Your task to perform on an android device: open a bookmark in the chrome app Image 0: 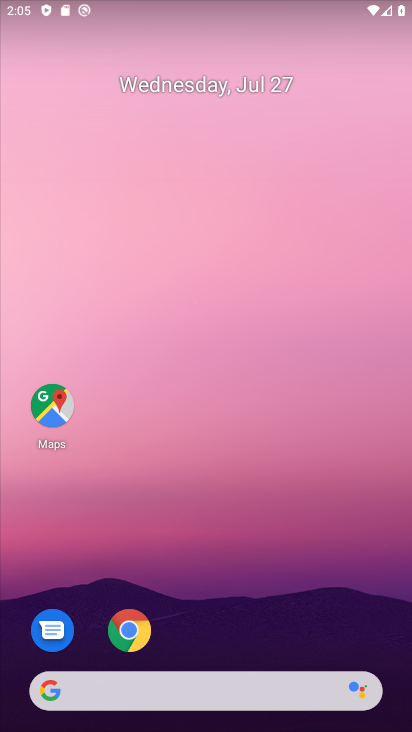
Step 0: drag from (262, 637) to (196, 83)
Your task to perform on an android device: open a bookmark in the chrome app Image 1: 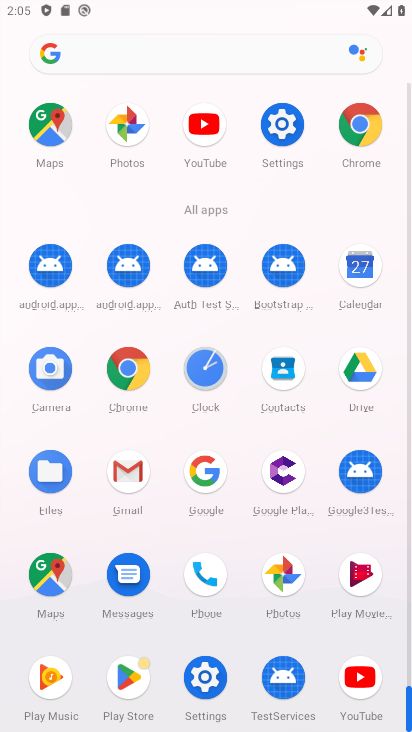
Step 1: click (364, 121)
Your task to perform on an android device: open a bookmark in the chrome app Image 2: 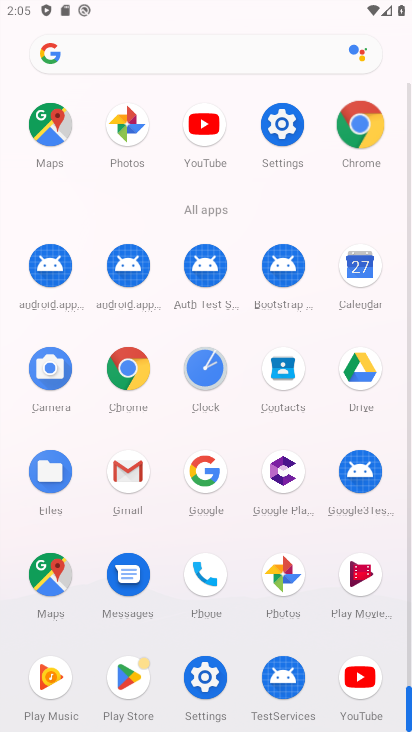
Step 2: click (364, 121)
Your task to perform on an android device: open a bookmark in the chrome app Image 3: 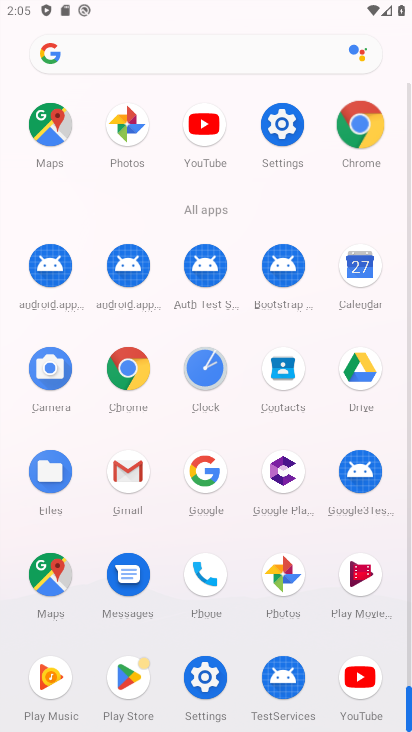
Step 3: click (364, 117)
Your task to perform on an android device: open a bookmark in the chrome app Image 4: 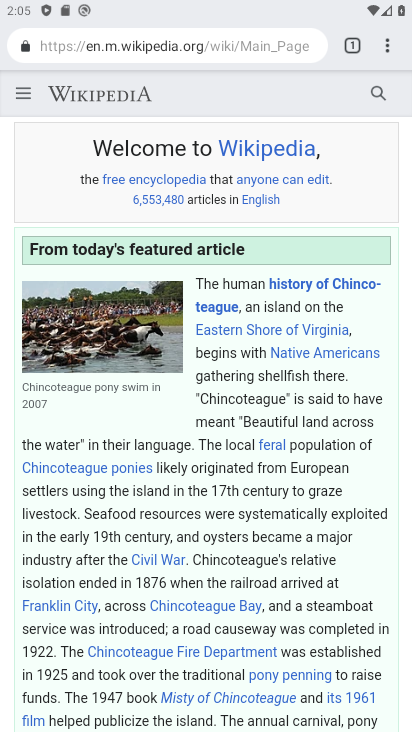
Step 4: drag from (386, 48) to (233, 167)
Your task to perform on an android device: open a bookmark in the chrome app Image 5: 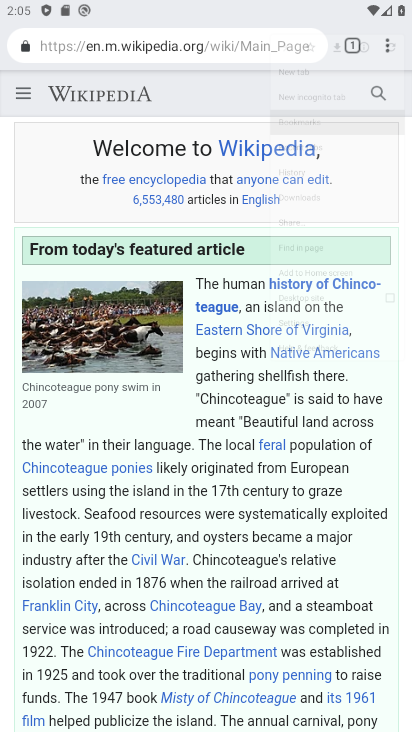
Step 5: click (233, 175)
Your task to perform on an android device: open a bookmark in the chrome app Image 6: 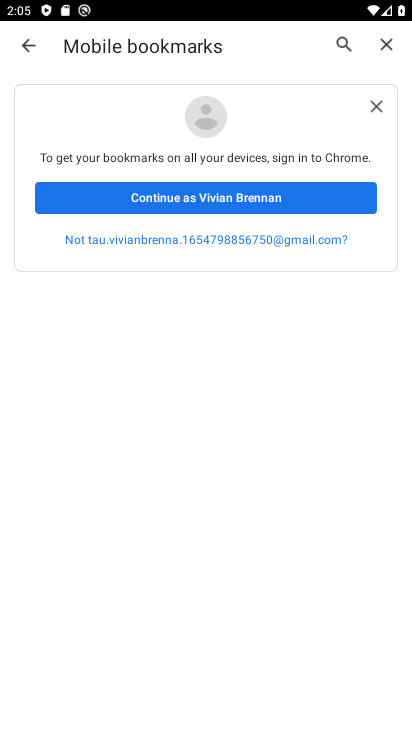
Step 6: click (366, 109)
Your task to perform on an android device: open a bookmark in the chrome app Image 7: 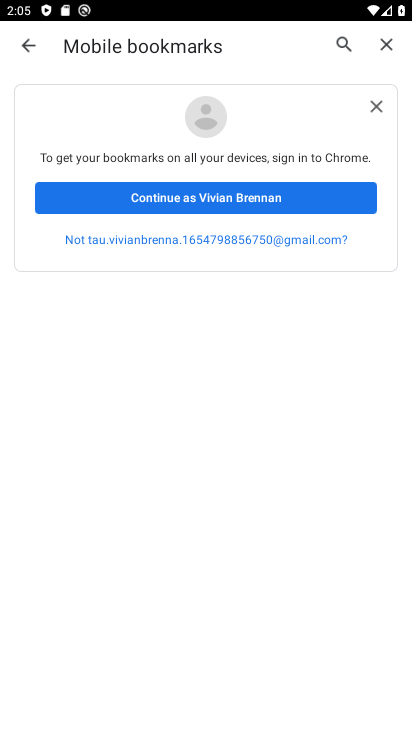
Step 7: click (368, 109)
Your task to perform on an android device: open a bookmark in the chrome app Image 8: 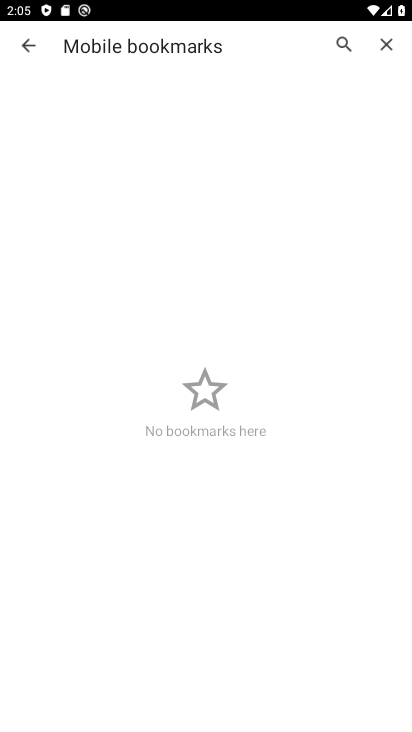
Step 8: task complete